Your task to perform on an android device: set an alarm Image 0: 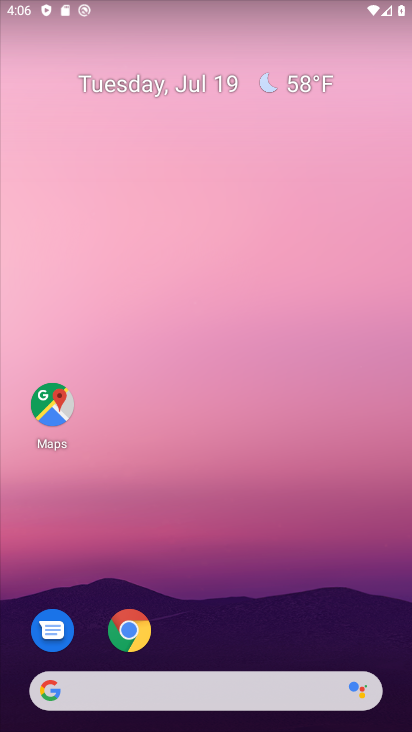
Step 0: drag from (62, 667) to (263, 0)
Your task to perform on an android device: set an alarm Image 1: 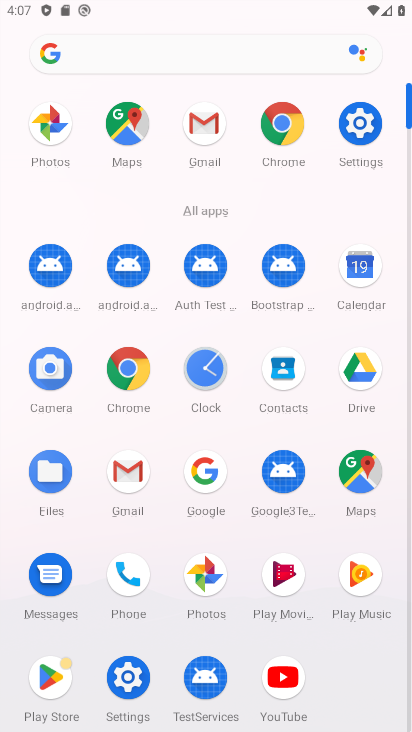
Step 1: click (197, 394)
Your task to perform on an android device: set an alarm Image 2: 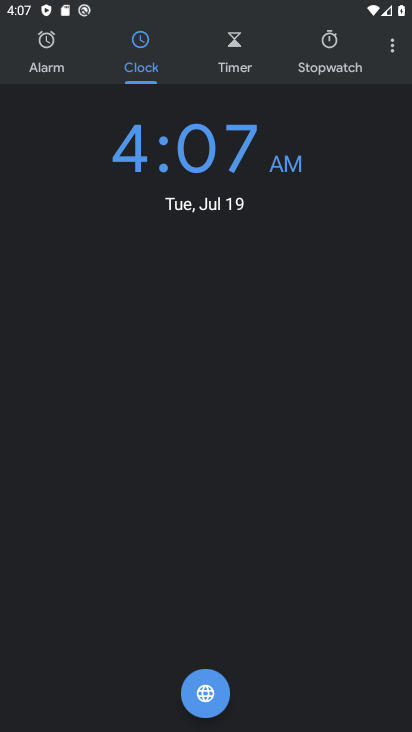
Step 2: click (65, 47)
Your task to perform on an android device: set an alarm Image 3: 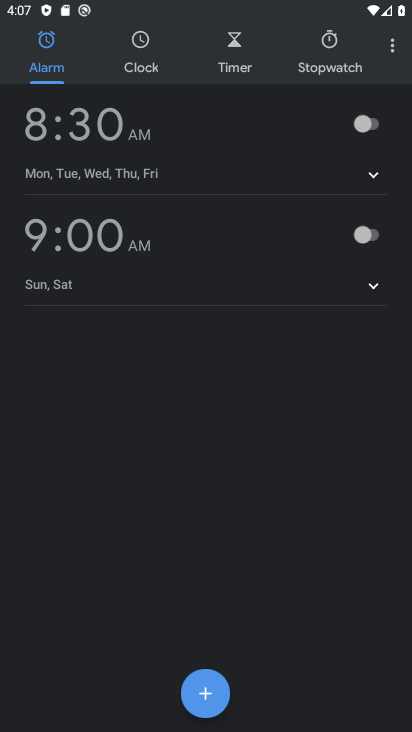
Step 3: task complete